Your task to perform on an android device: toggle airplane mode Image 0: 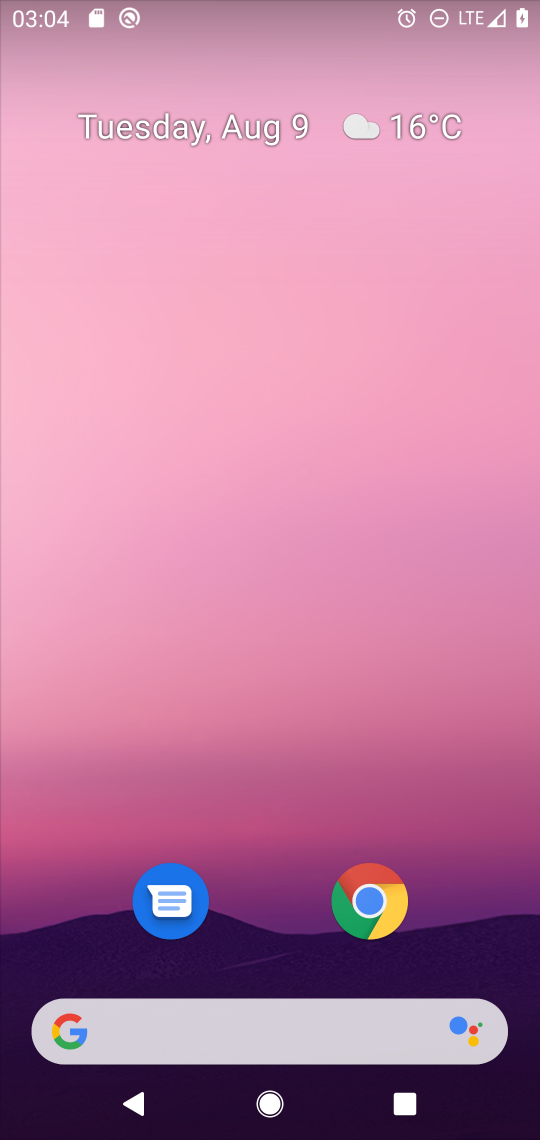
Step 0: drag from (517, 968) to (475, 80)
Your task to perform on an android device: toggle airplane mode Image 1: 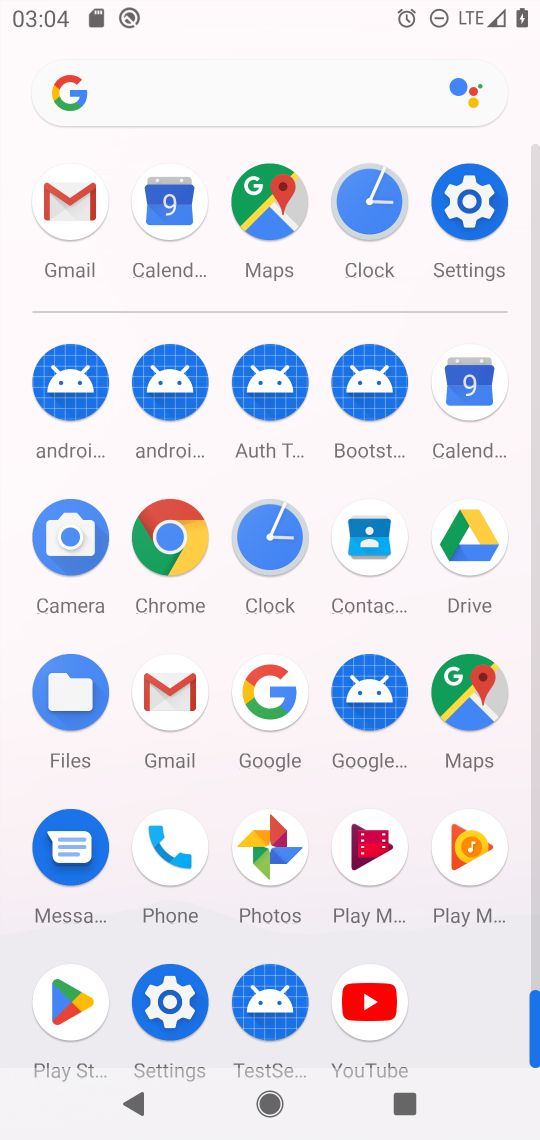
Step 1: click (173, 998)
Your task to perform on an android device: toggle airplane mode Image 2: 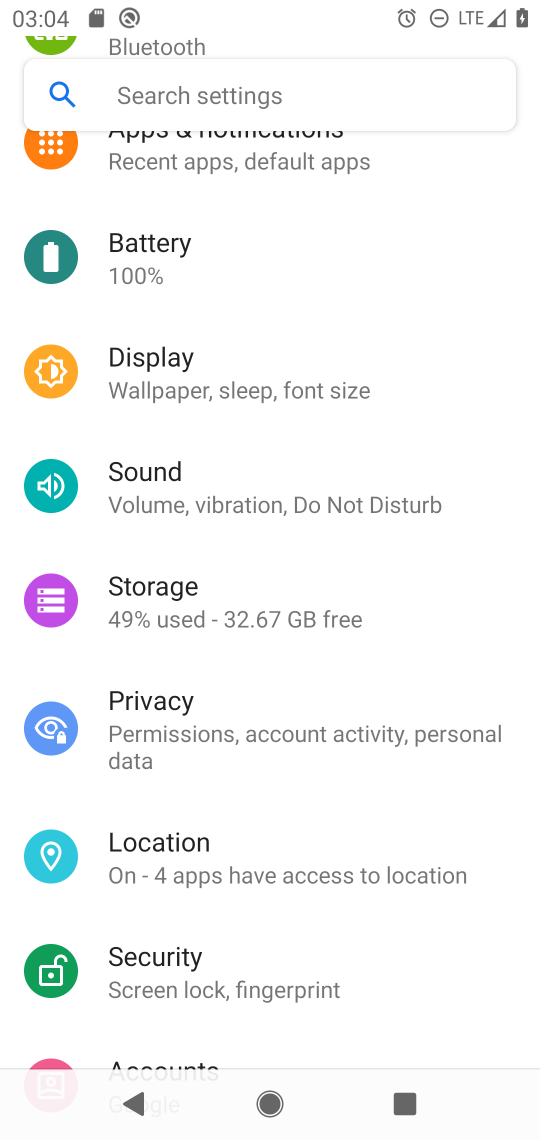
Step 2: drag from (416, 258) to (419, 677)
Your task to perform on an android device: toggle airplane mode Image 3: 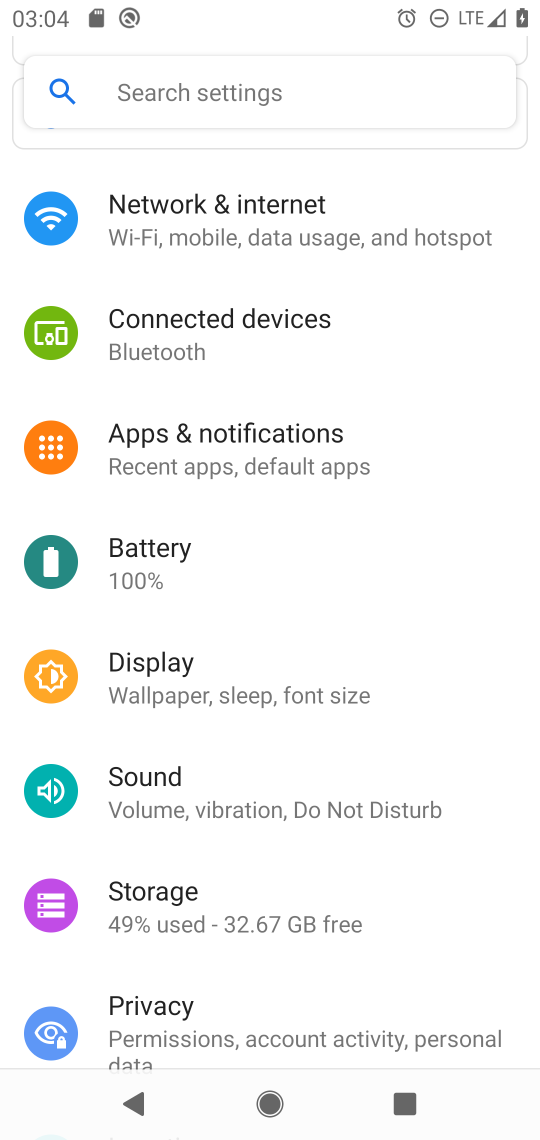
Step 3: click (175, 205)
Your task to perform on an android device: toggle airplane mode Image 4: 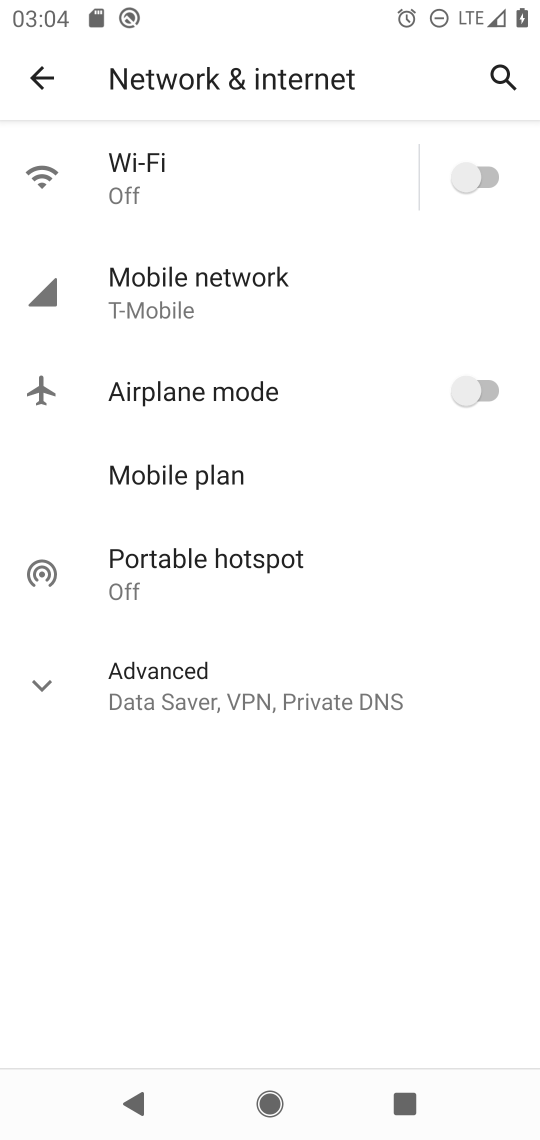
Step 4: click (490, 393)
Your task to perform on an android device: toggle airplane mode Image 5: 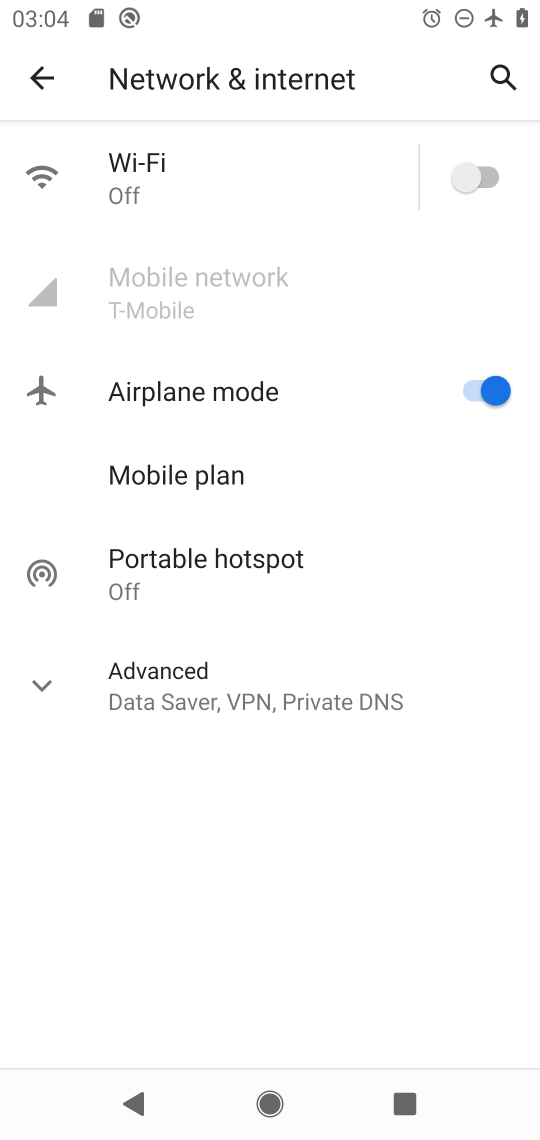
Step 5: task complete